Your task to perform on an android device: Searchfor good French restaurants Image 0: 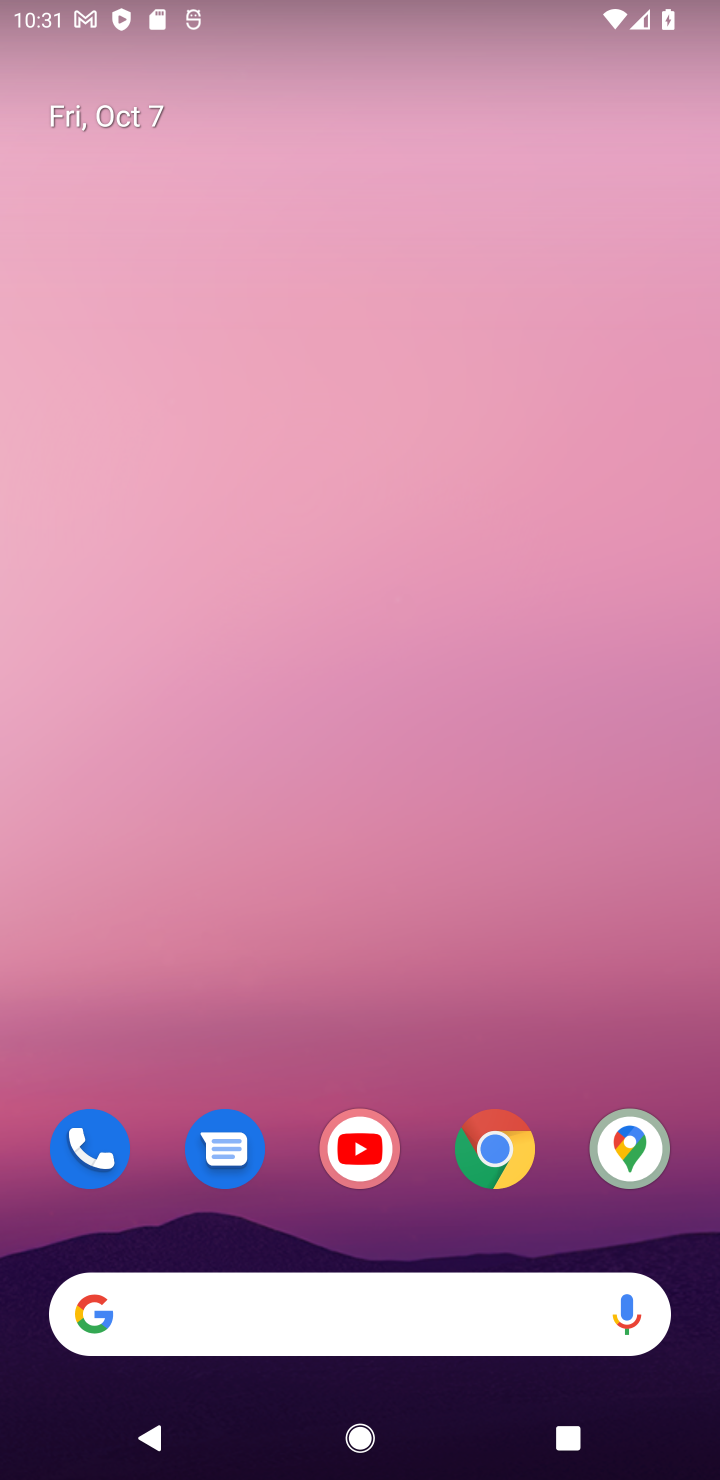
Step 0: click (266, 1316)
Your task to perform on an android device: Searchfor good French restaurants Image 1: 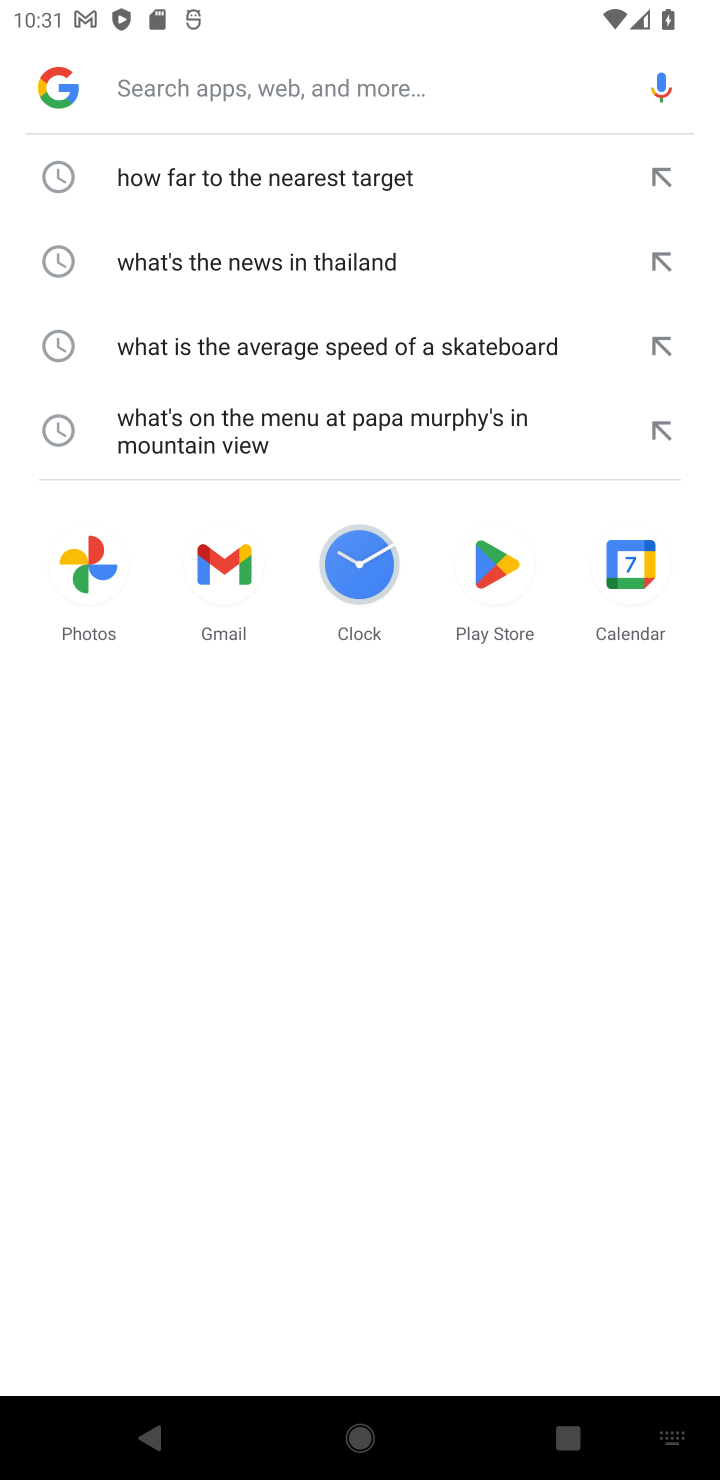
Step 1: type "Searchfor good French restaurants"
Your task to perform on an android device: Searchfor good French restaurants Image 2: 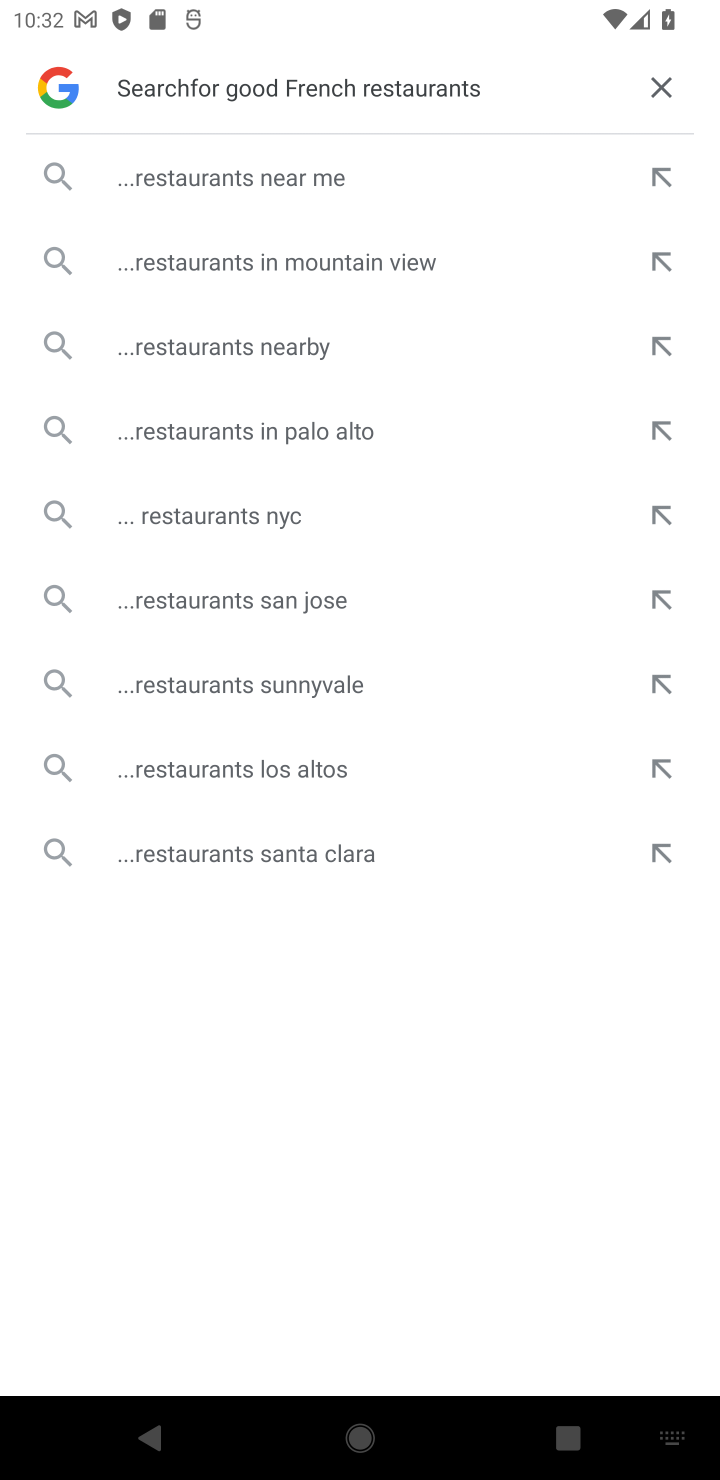
Step 2: click (426, 184)
Your task to perform on an android device: Searchfor good French restaurants Image 3: 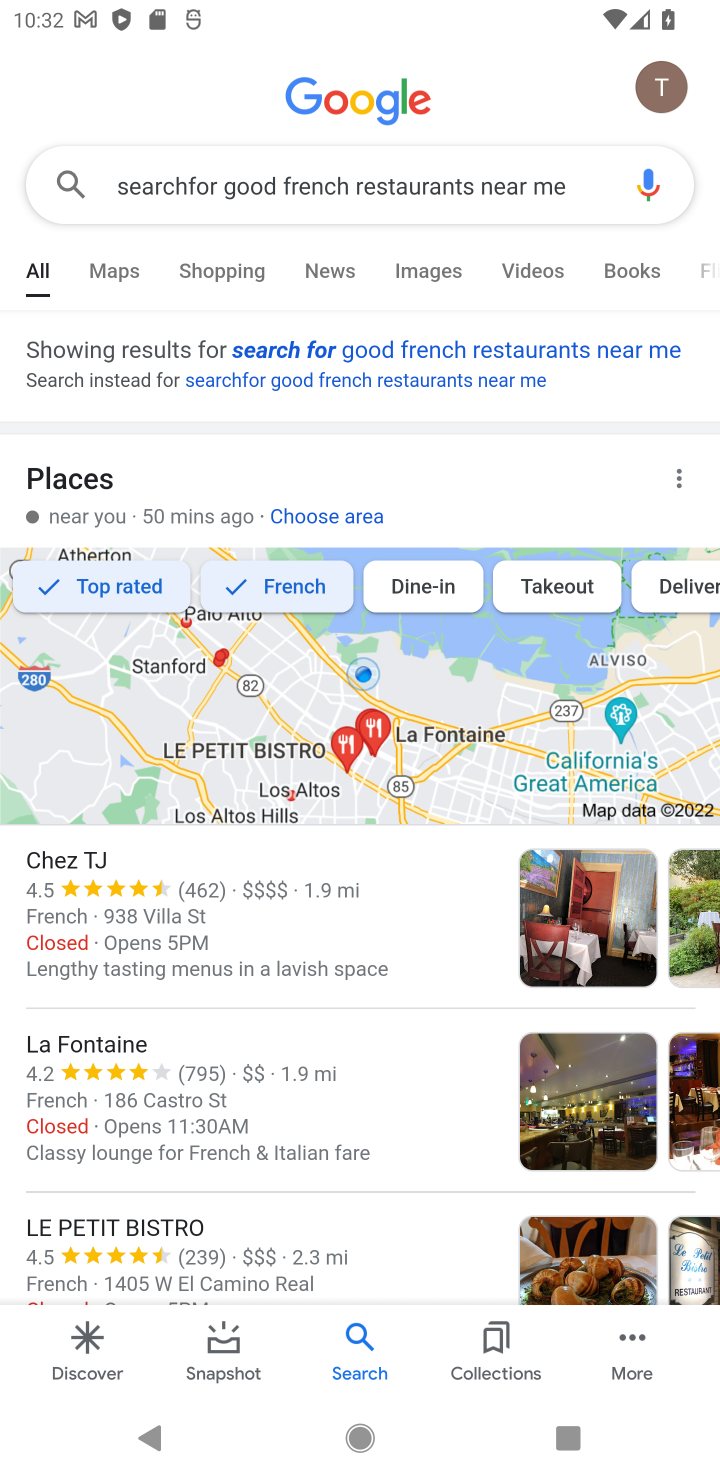
Step 3: click (427, 330)
Your task to perform on an android device: Searchfor good French restaurants Image 4: 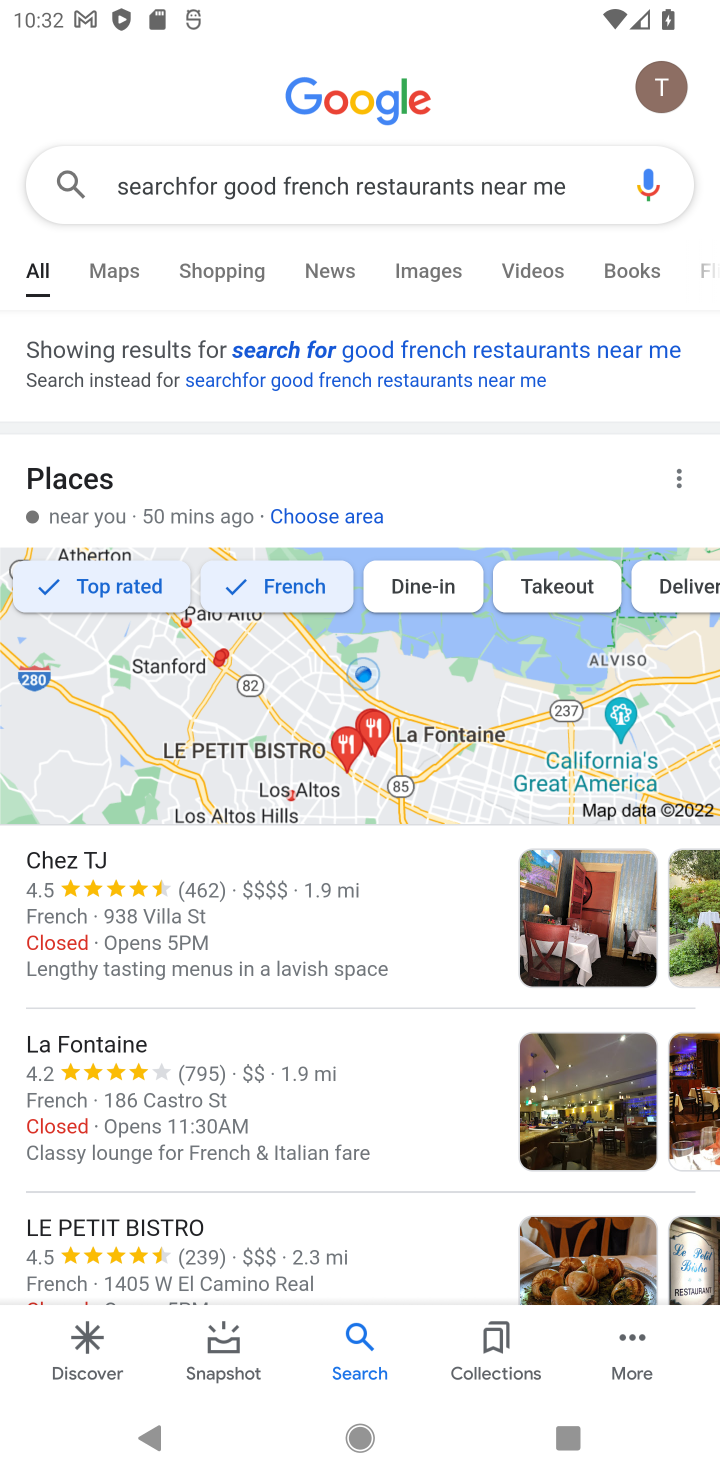
Step 4: click (325, 346)
Your task to perform on an android device: Searchfor good French restaurants Image 5: 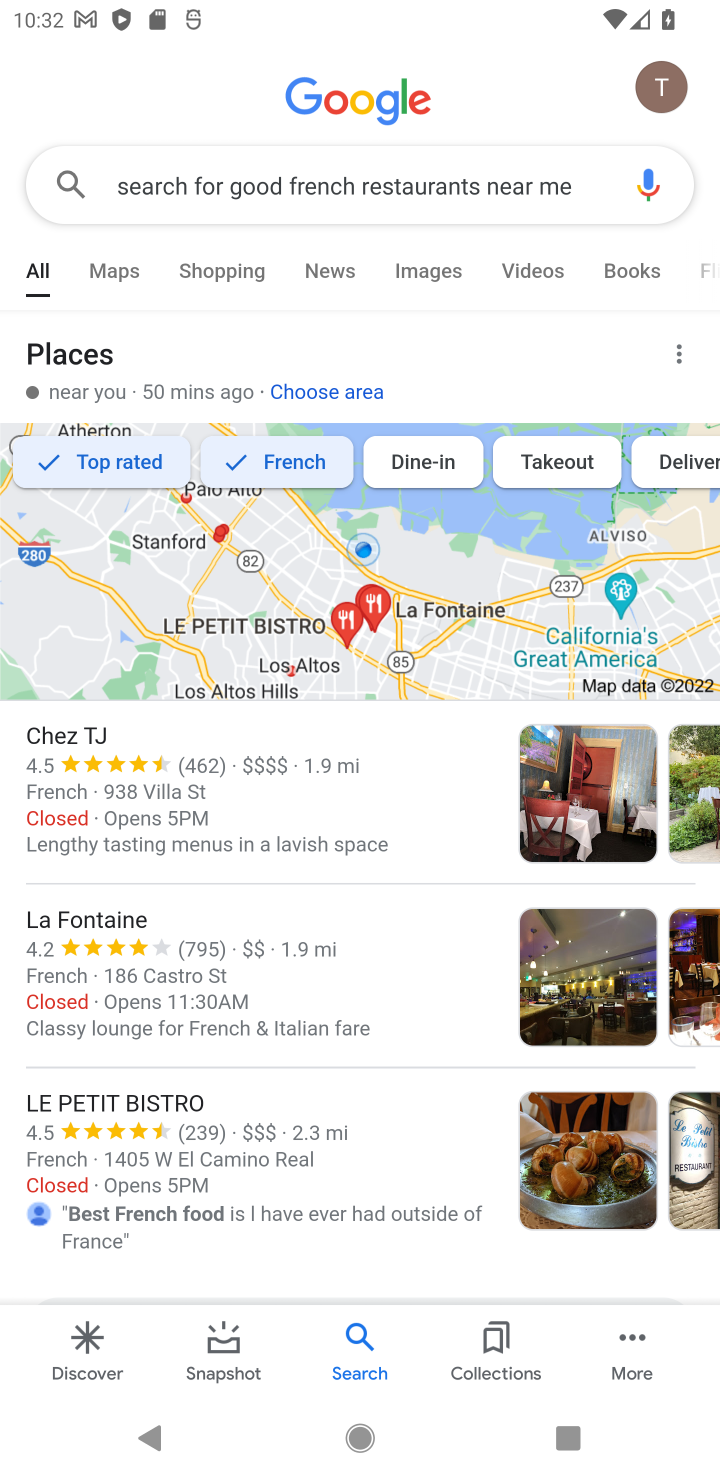
Step 5: task complete